Your task to perform on an android device: see sites visited before in the chrome app Image 0: 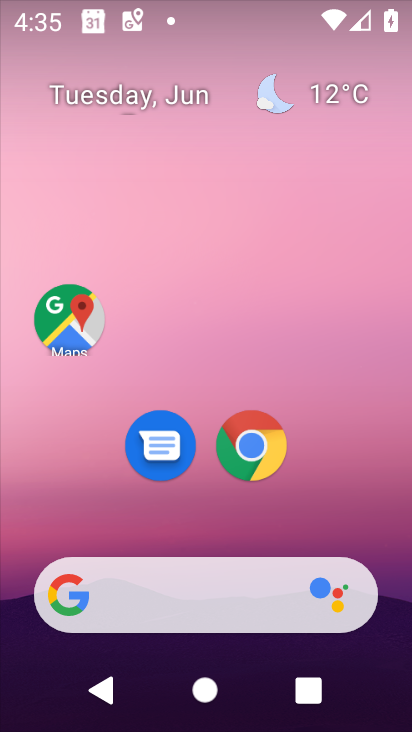
Step 0: drag from (374, 283) to (331, 0)
Your task to perform on an android device: see sites visited before in the chrome app Image 1: 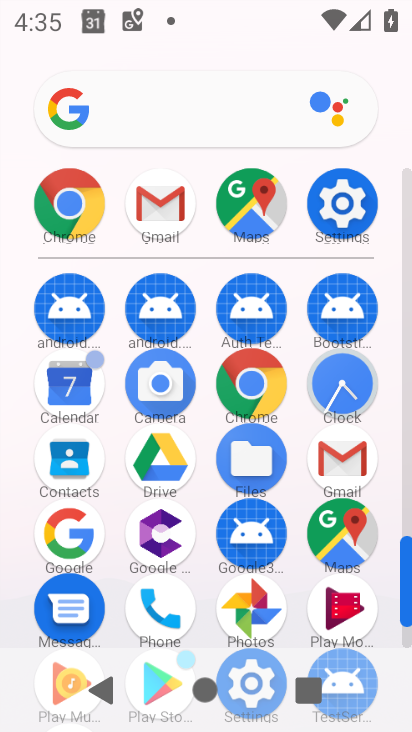
Step 1: click (70, 213)
Your task to perform on an android device: see sites visited before in the chrome app Image 2: 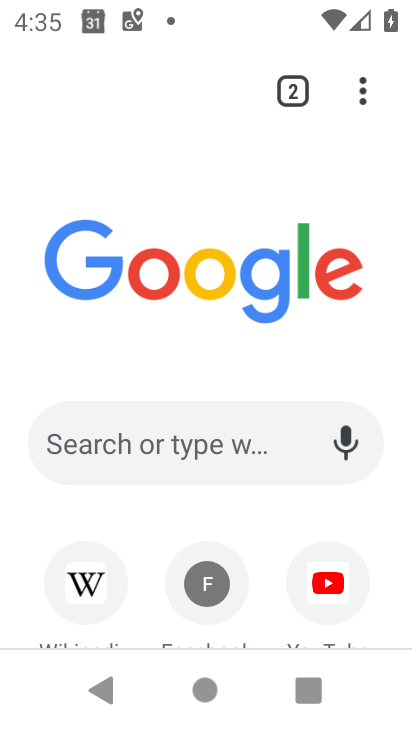
Step 2: task complete